Your task to perform on an android device: delete browsing data in the chrome app Image 0: 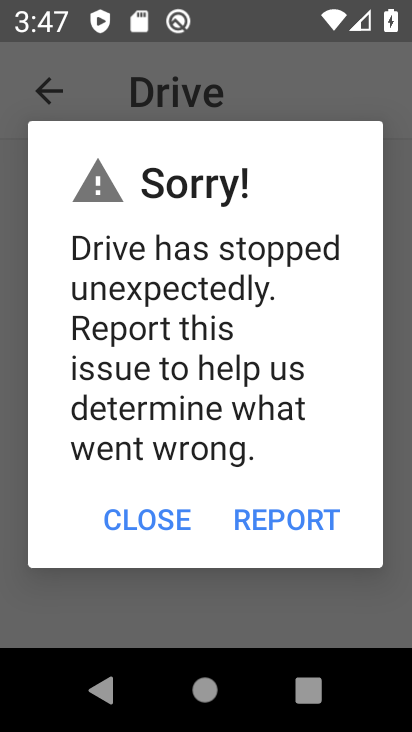
Step 0: press home button
Your task to perform on an android device: delete browsing data in the chrome app Image 1: 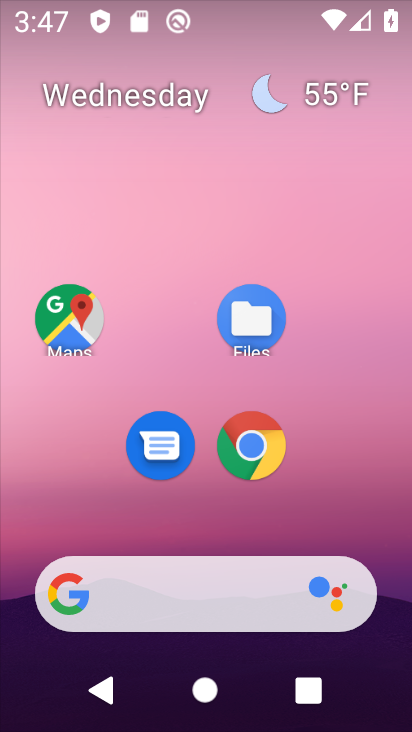
Step 1: click (256, 452)
Your task to perform on an android device: delete browsing data in the chrome app Image 2: 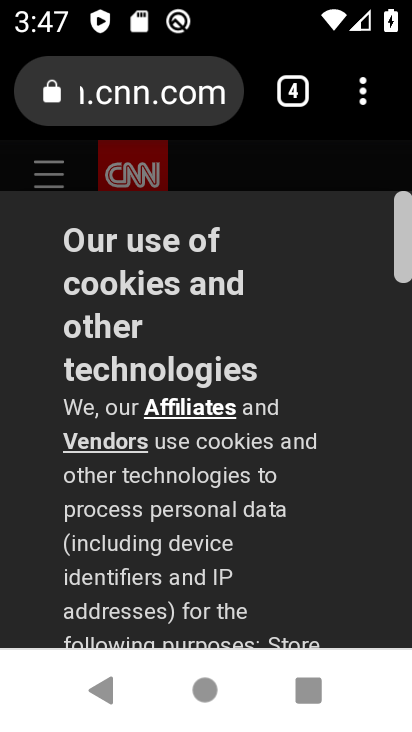
Step 2: click (354, 82)
Your task to perform on an android device: delete browsing data in the chrome app Image 3: 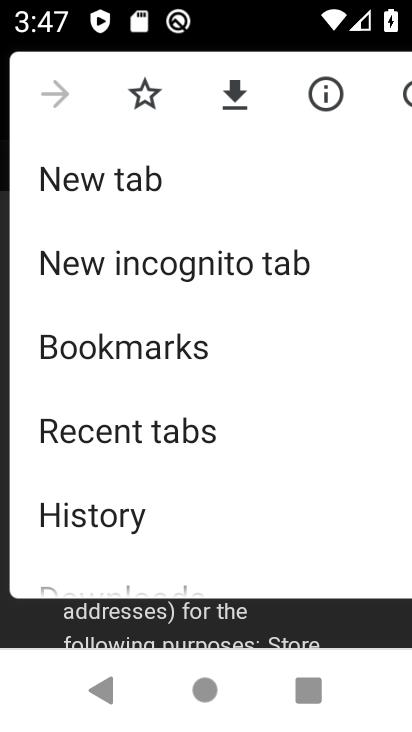
Step 3: drag from (316, 537) to (323, 295)
Your task to perform on an android device: delete browsing data in the chrome app Image 4: 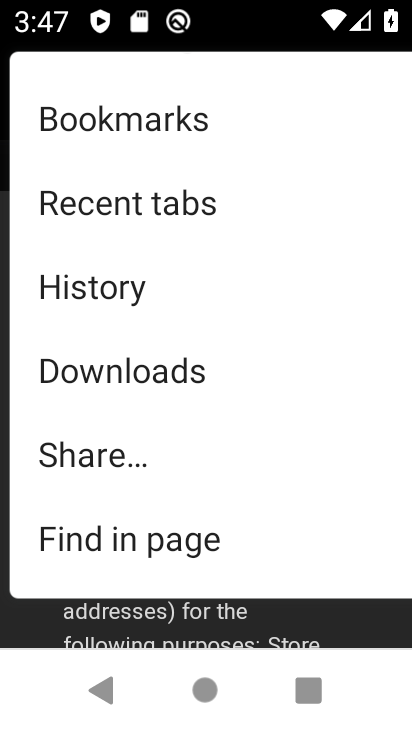
Step 4: drag from (332, 478) to (330, 231)
Your task to perform on an android device: delete browsing data in the chrome app Image 5: 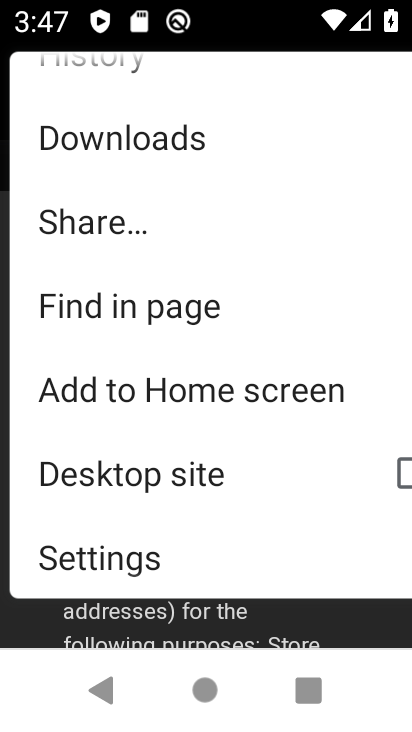
Step 5: click (143, 579)
Your task to perform on an android device: delete browsing data in the chrome app Image 6: 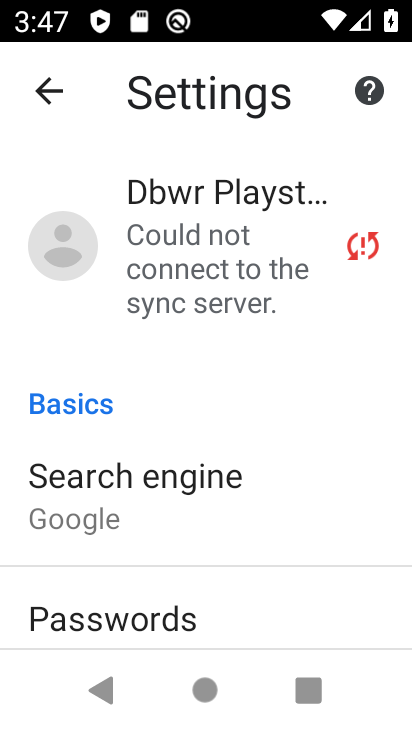
Step 6: click (328, 577)
Your task to perform on an android device: delete browsing data in the chrome app Image 7: 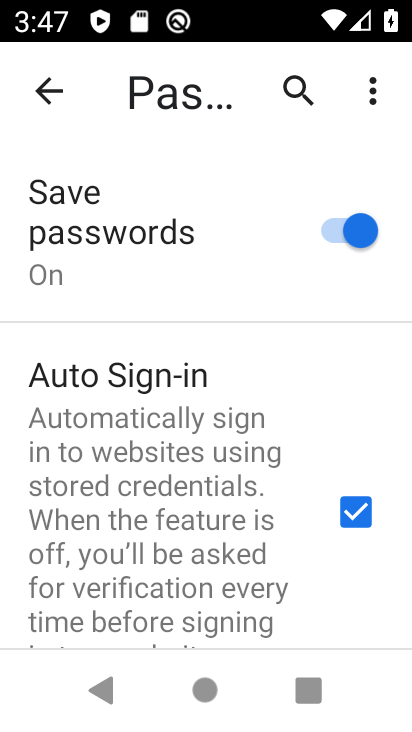
Step 7: press back button
Your task to perform on an android device: delete browsing data in the chrome app Image 8: 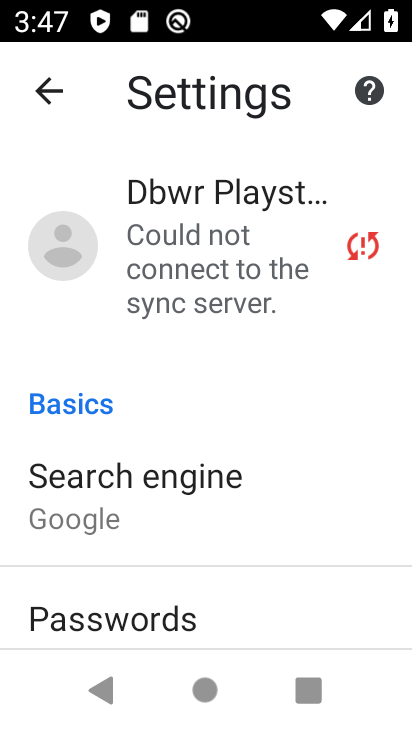
Step 8: drag from (306, 568) to (310, 283)
Your task to perform on an android device: delete browsing data in the chrome app Image 9: 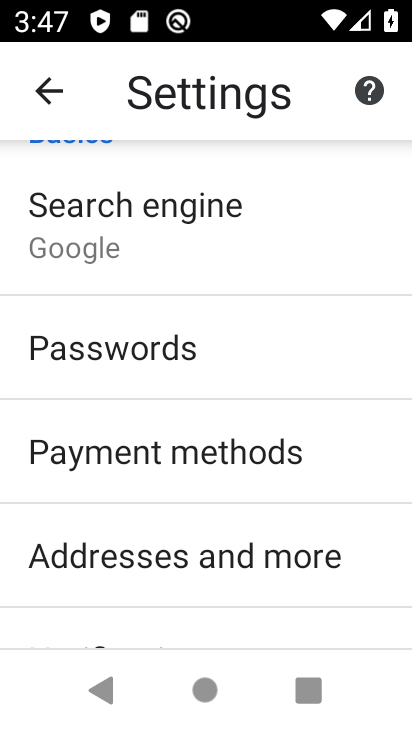
Step 9: drag from (363, 573) to (312, 238)
Your task to perform on an android device: delete browsing data in the chrome app Image 10: 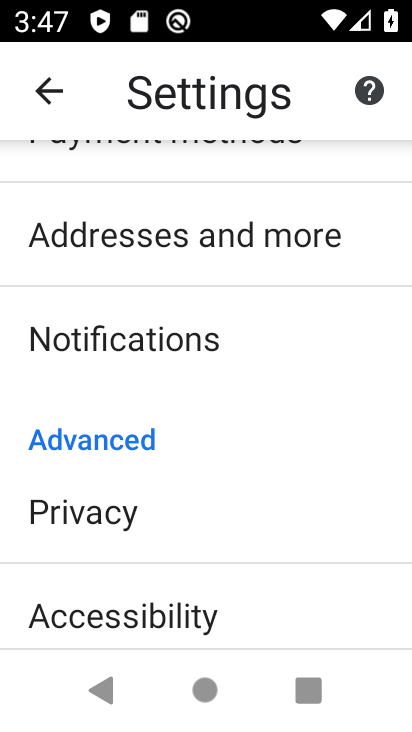
Step 10: drag from (235, 542) to (198, 178)
Your task to perform on an android device: delete browsing data in the chrome app Image 11: 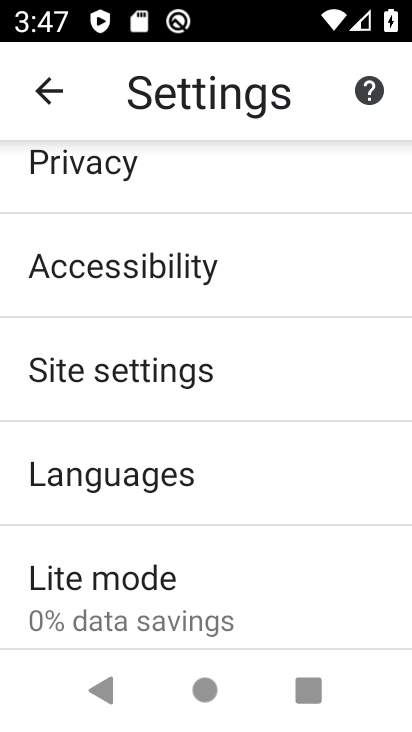
Step 11: click (265, 355)
Your task to perform on an android device: delete browsing data in the chrome app Image 12: 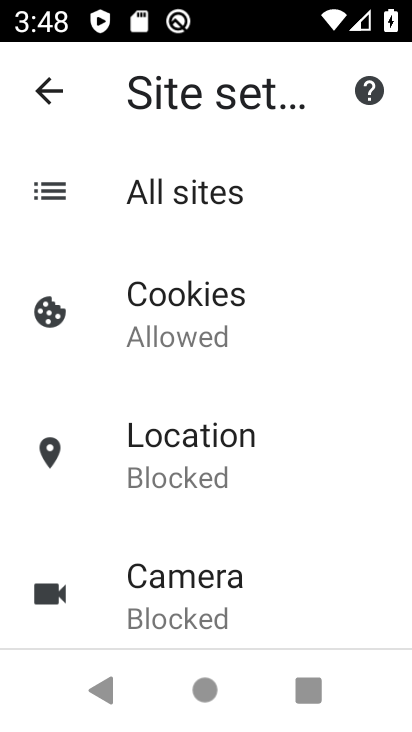
Step 12: drag from (344, 585) to (312, 287)
Your task to perform on an android device: delete browsing data in the chrome app Image 13: 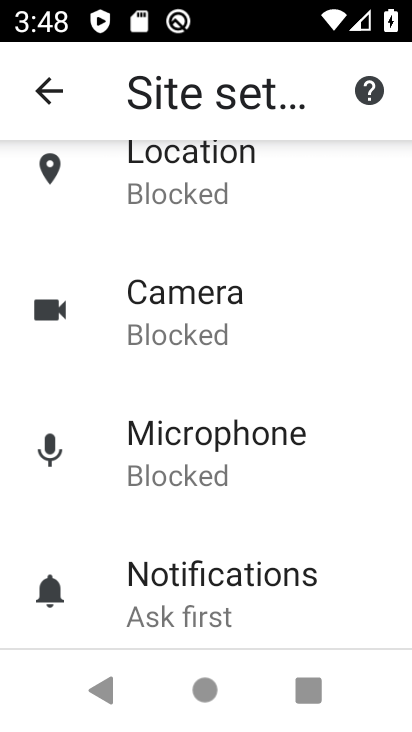
Step 13: drag from (339, 562) to (267, 226)
Your task to perform on an android device: delete browsing data in the chrome app Image 14: 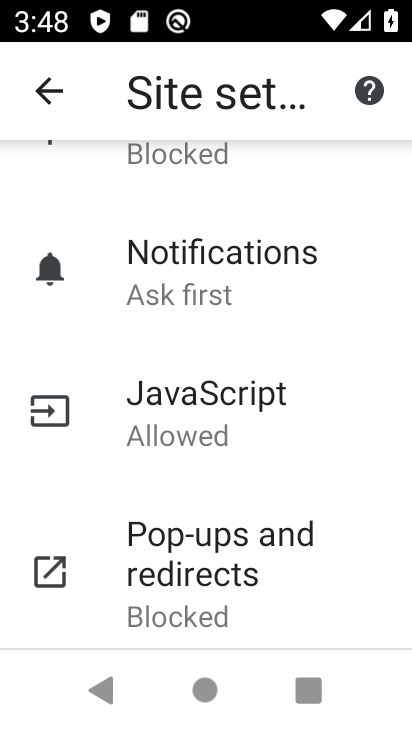
Step 14: press back button
Your task to perform on an android device: delete browsing data in the chrome app Image 15: 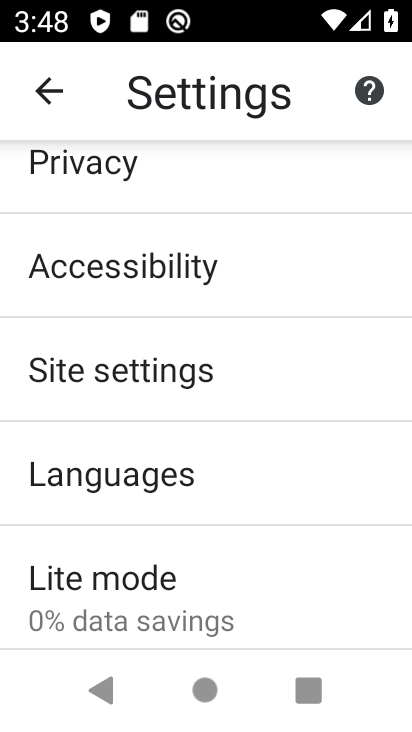
Step 15: click (302, 170)
Your task to perform on an android device: delete browsing data in the chrome app Image 16: 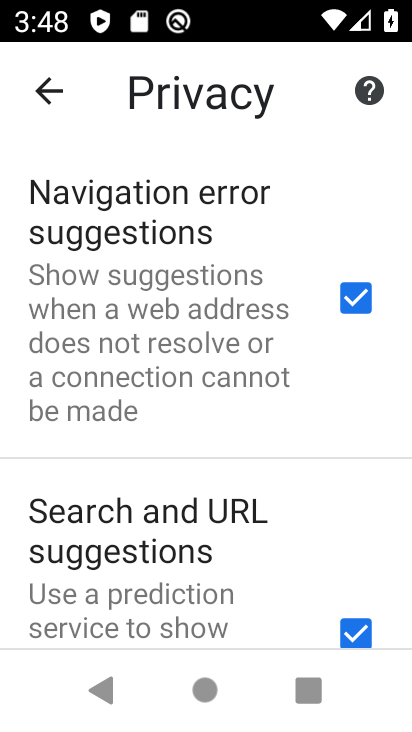
Step 16: drag from (296, 586) to (232, 322)
Your task to perform on an android device: delete browsing data in the chrome app Image 17: 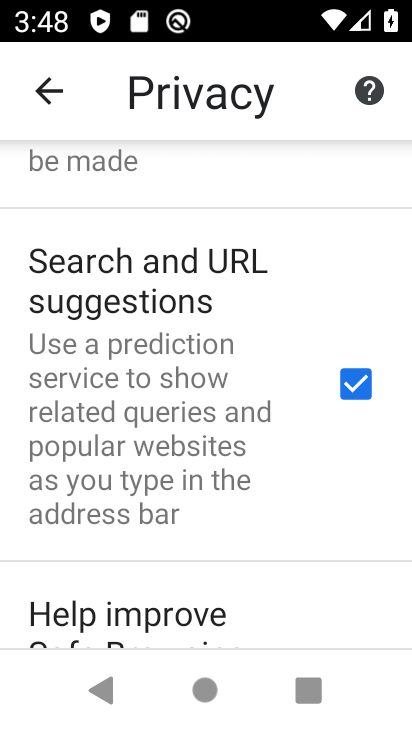
Step 17: drag from (154, 618) to (50, 271)
Your task to perform on an android device: delete browsing data in the chrome app Image 18: 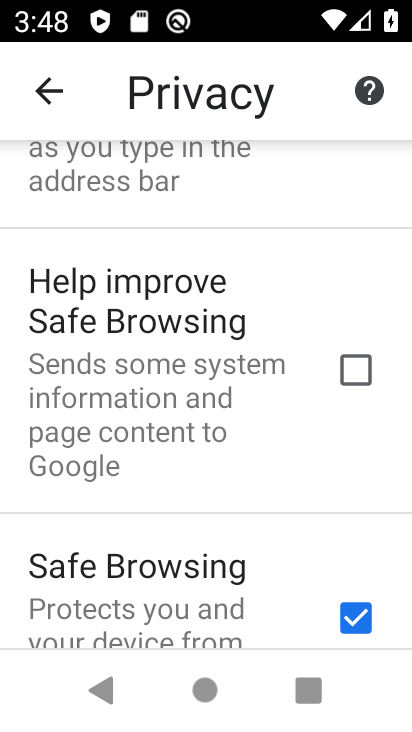
Step 18: drag from (205, 573) to (179, 336)
Your task to perform on an android device: delete browsing data in the chrome app Image 19: 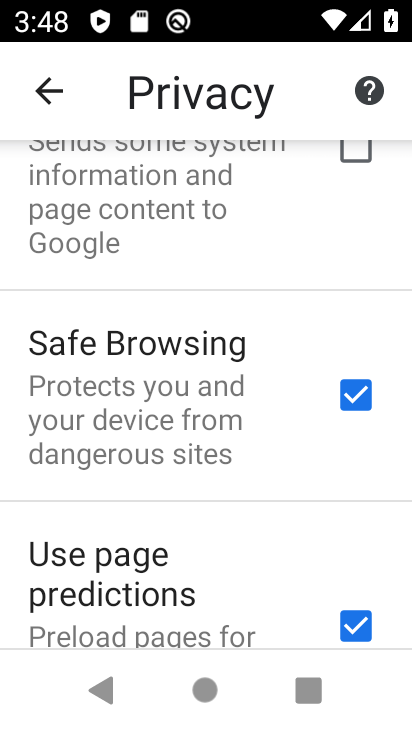
Step 19: drag from (185, 620) to (162, 453)
Your task to perform on an android device: delete browsing data in the chrome app Image 20: 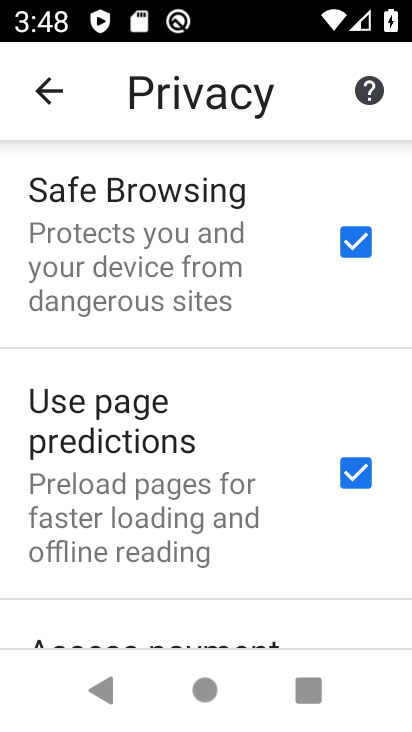
Step 20: drag from (223, 586) to (206, 428)
Your task to perform on an android device: delete browsing data in the chrome app Image 21: 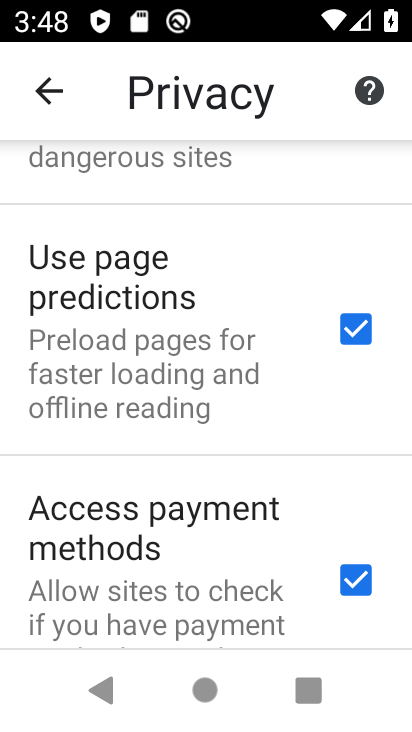
Step 21: drag from (225, 582) to (231, 372)
Your task to perform on an android device: delete browsing data in the chrome app Image 22: 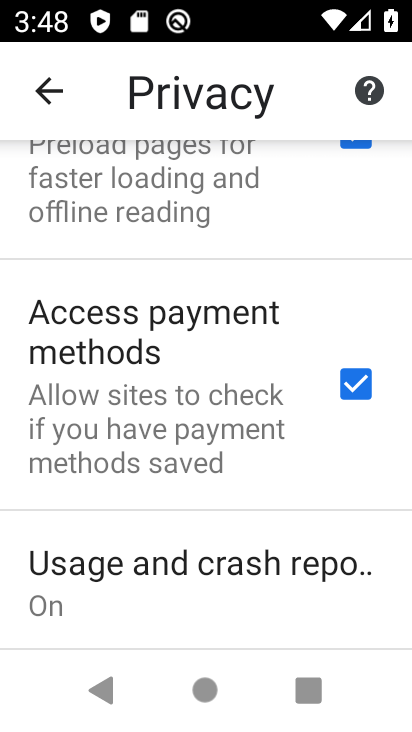
Step 22: drag from (287, 580) to (279, 418)
Your task to perform on an android device: delete browsing data in the chrome app Image 23: 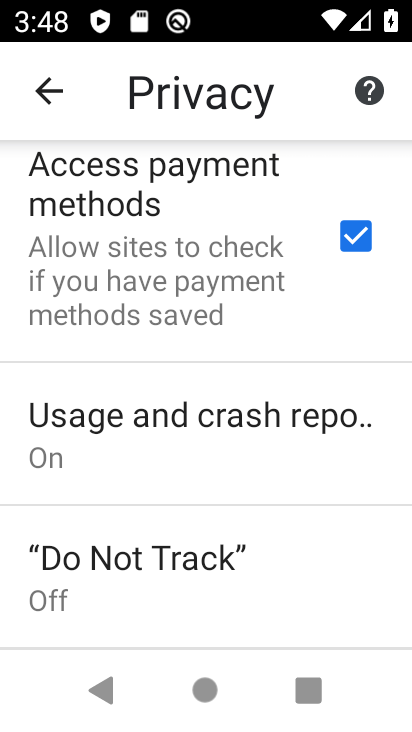
Step 23: click (270, 396)
Your task to perform on an android device: delete browsing data in the chrome app Image 24: 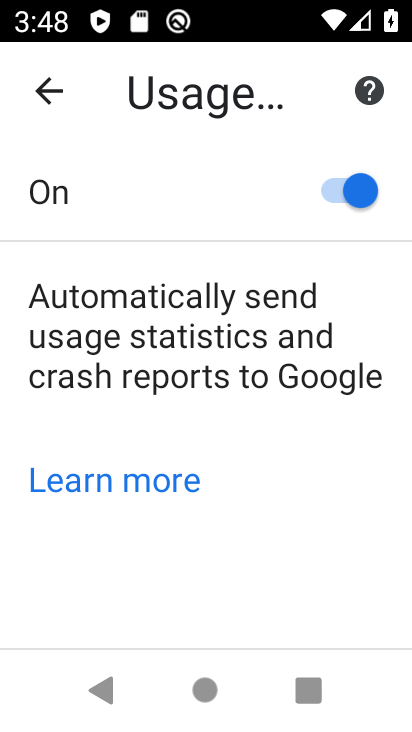
Step 24: press back button
Your task to perform on an android device: delete browsing data in the chrome app Image 25: 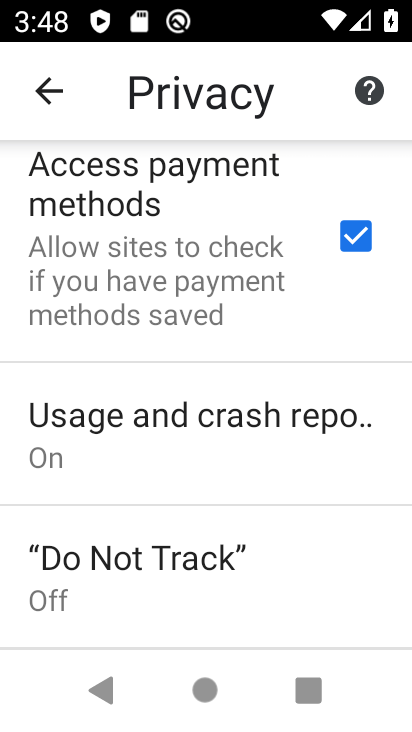
Step 25: drag from (409, 612) to (380, 415)
Your task to perform on an android device: delete browsing data in the chrome app Image 26: 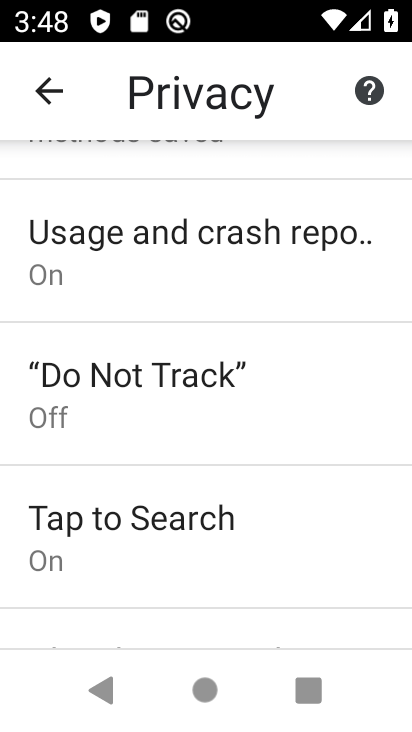
Step 26: drag from (398, 586) to (377, 453)
Your task to perform on an android device: delete browsing data in the chrome app Image 27: 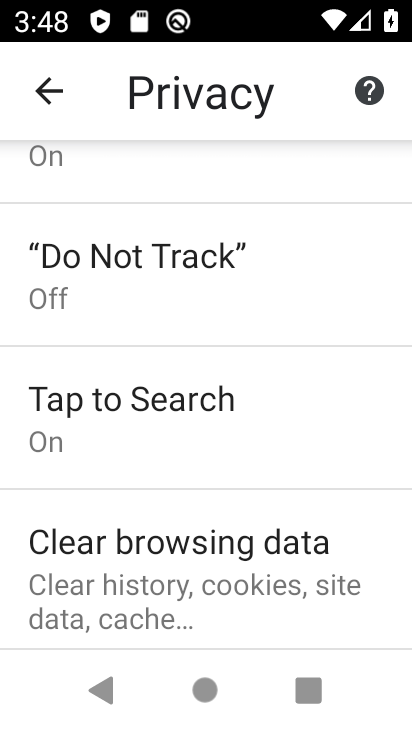
Step 27: click (314, 551)
Your task to perform on an android device: delete browsing data in the chrome app Image 28: 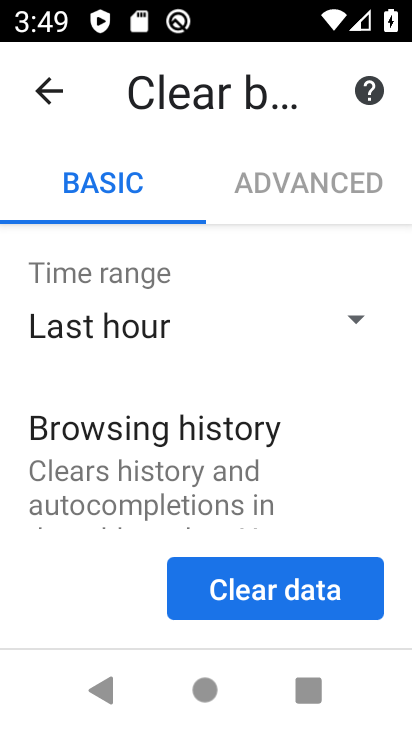
Step 28: click (321, 605)
Your task to perform on an android device: delete browsing data in the chrome app Image 29: 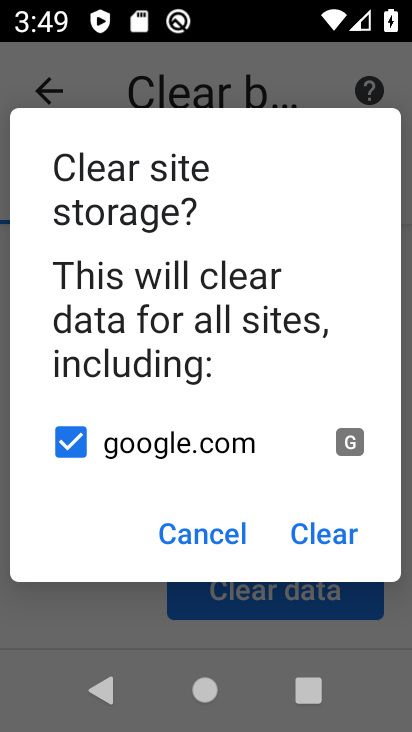
Step 29: click (347, 527)
Your task to perform on an android device: delete browsing data in the chrome app Image 30: 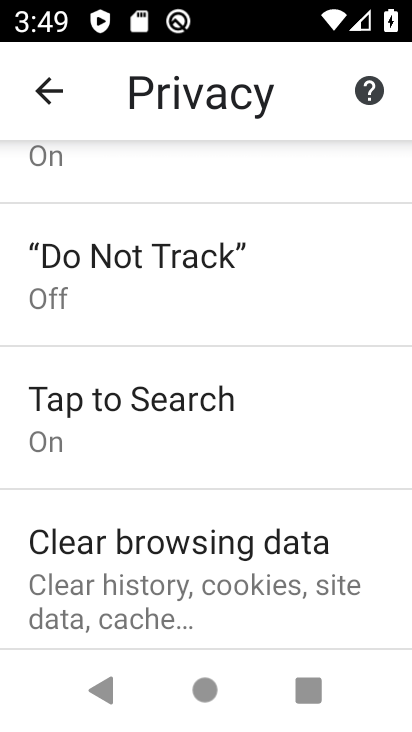
Step 30: task complete